Your task to perform on an android device: change keyboard looks Image 0: 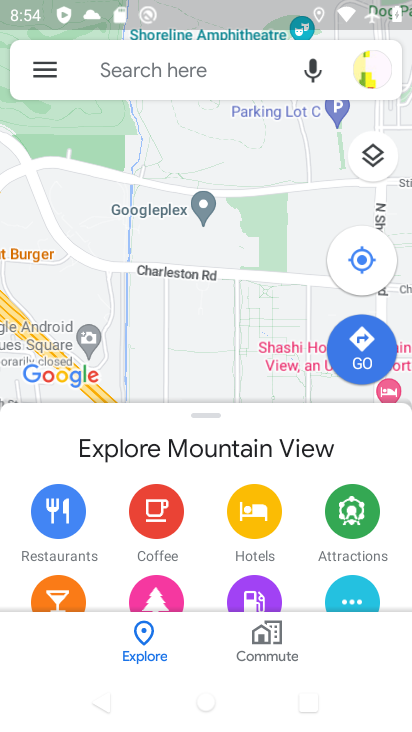
Step 0: press home button
Your task to perform on an android device: change keyboard looks Image 1: 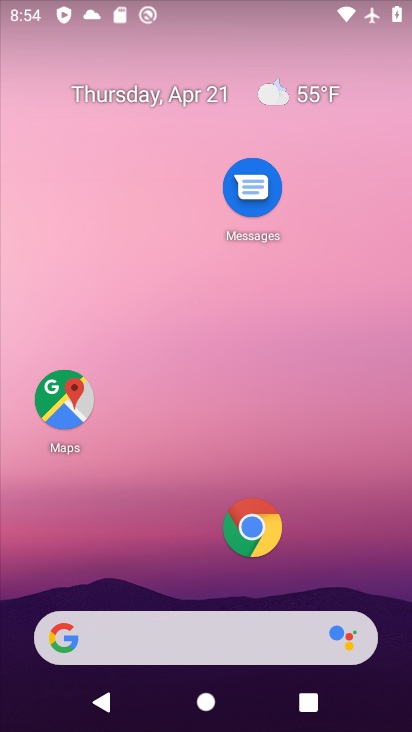
Step 1: drag from (193, 627) to (320, 11)
Your task to perform on an android device: change keyboard looks Image 2: 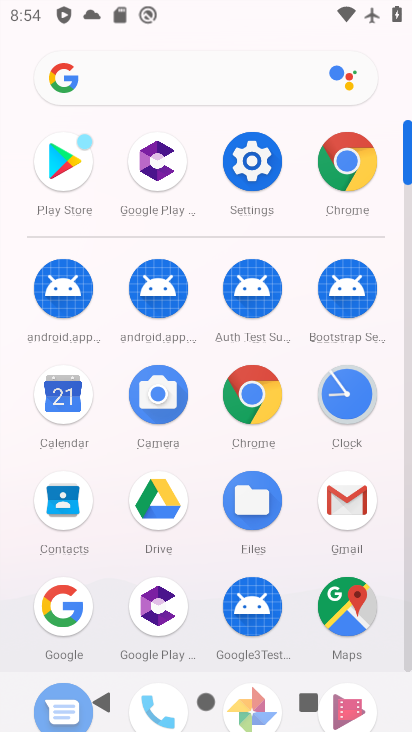
Step 2: click (256, 165)
Your task to perform on an android device: change keyboard looks Image 3: 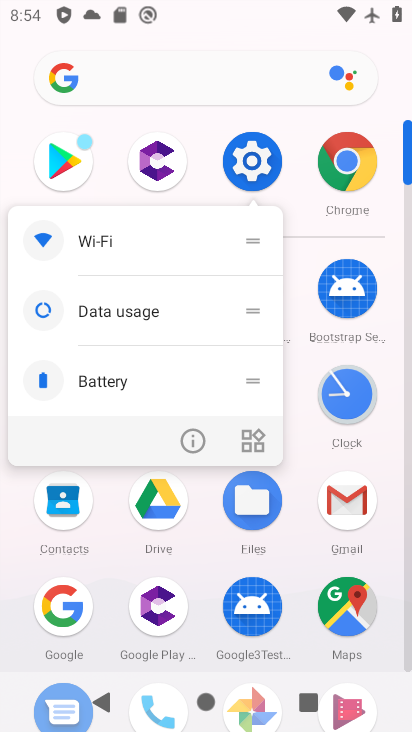
Step 3: click (248, 161)
Your task to perform on an android device: change keyboard looks Image 4: 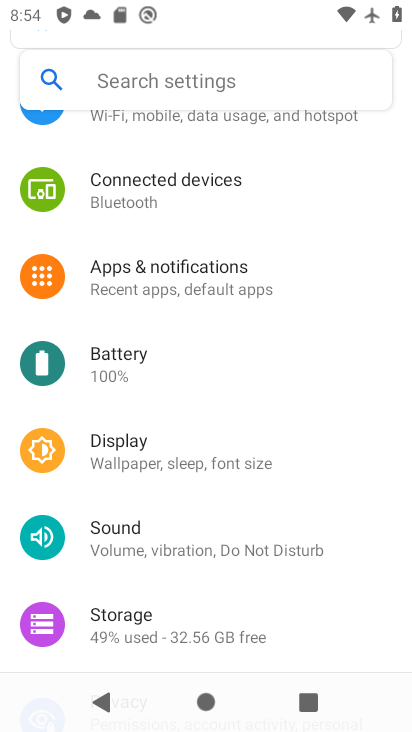
Step 4: drag from (177, 595) to (363, 7)
Your task to perform on an android device: change keyboard looks Image 5: 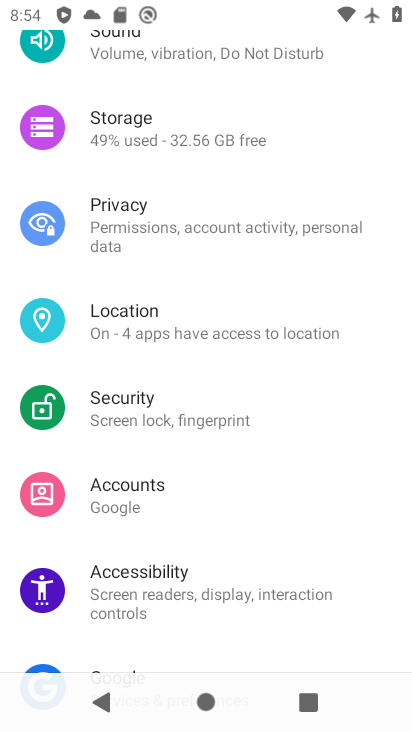
Step 5: drag from (196, 512) to (300, 195)
Your task to perform on an android device: change keyboard looks Image 6: 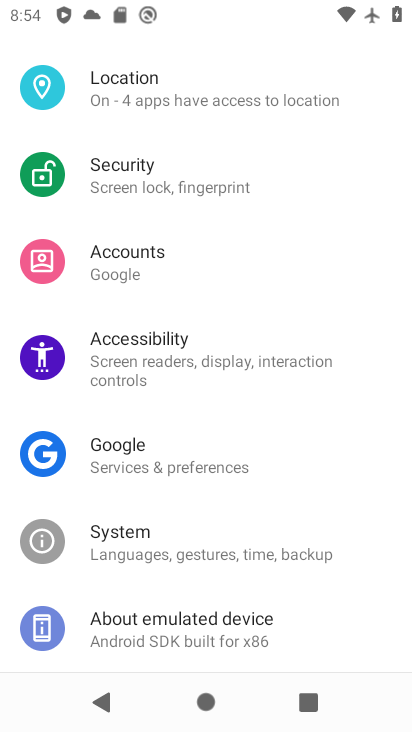
Step 6: click (139, 547)
Your task to perform on an android device: change keyboard looks Image 7: 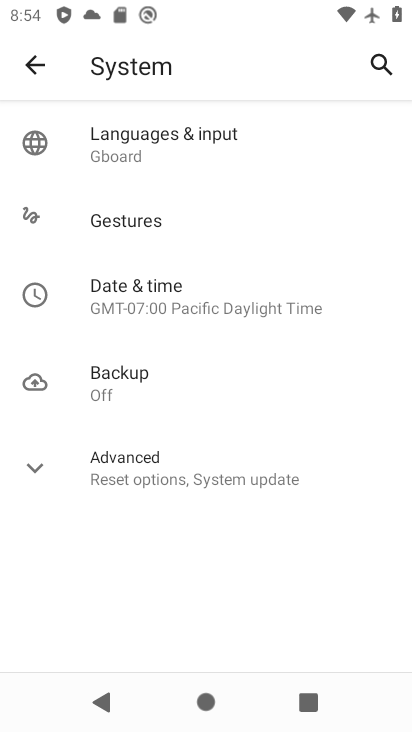
Step 7: click (175, 130)
Your task to perform on an android device: change keyboard looks Image 8: 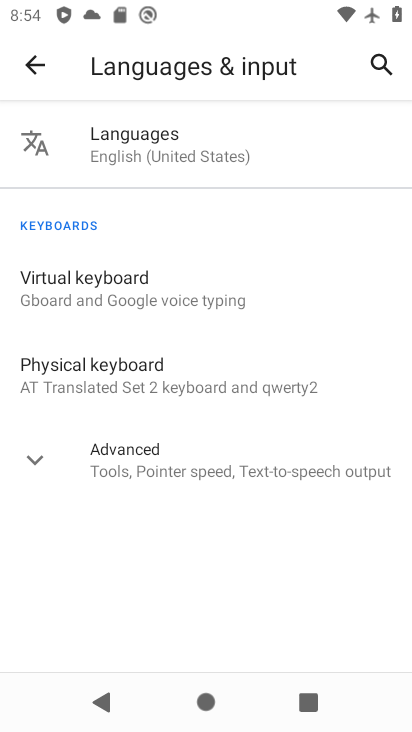
Step 8: click (114, 300)
Your task to perform on an android device: change keyboard looks Image 9: 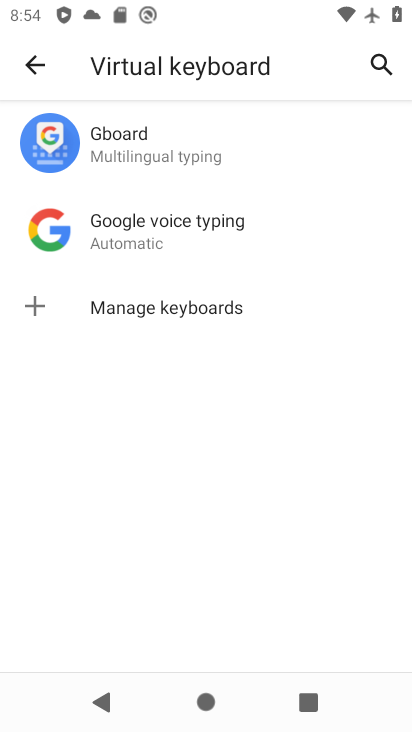
Step 9: click (154, 140)
Your task to perform on an android device: change keyboard looks Image 10: 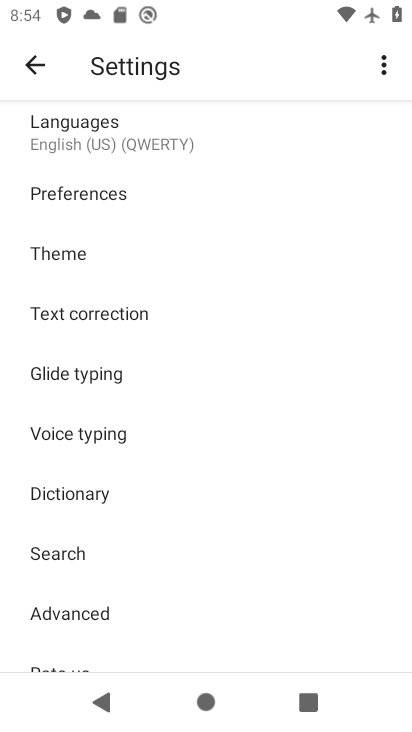
Step 10: click (79, 261)
Your task to perform on an android device: change keyboard looks Image 11: 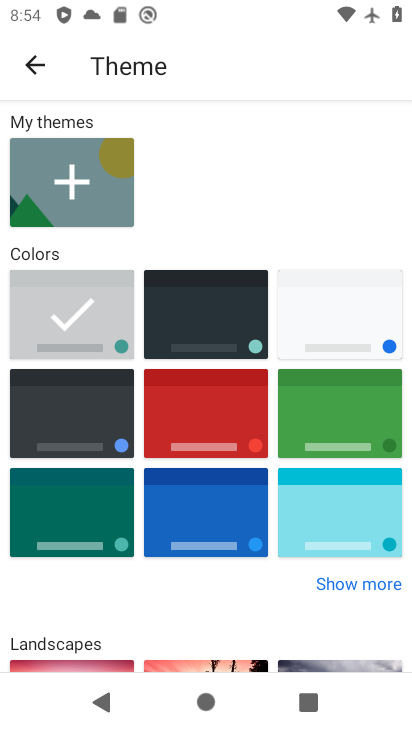
Step 11: click (322, 415)
Your task to perform on an android device: change keyboard looks Image 12: 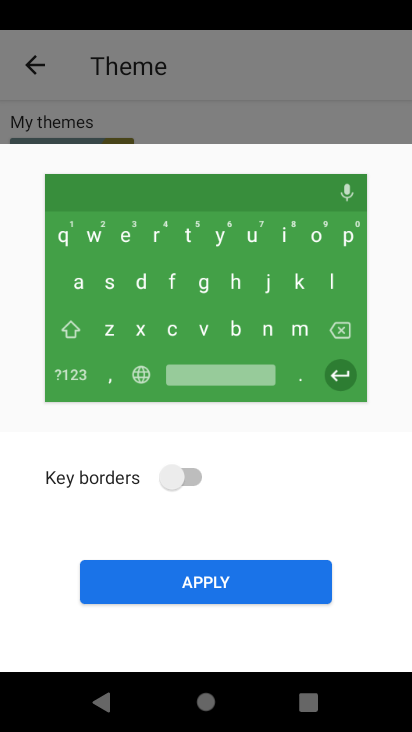
Step 12: click (208, 574)
Your task to perform on an android device: change keyboard looks Image 13: 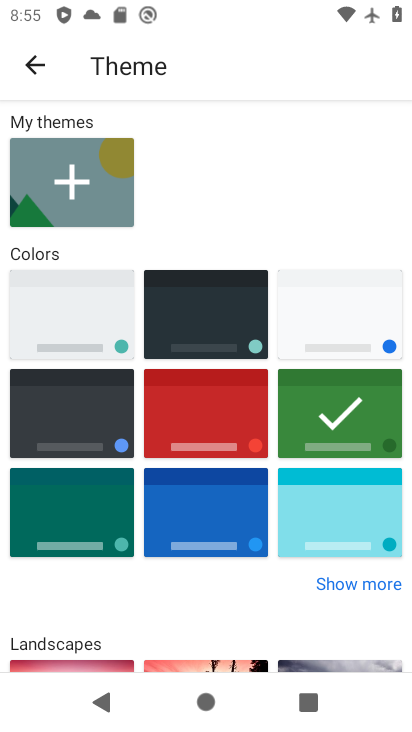
Step 13: task complete